Your task to perform on an android device: set default search engine in the chrome app Image 0: 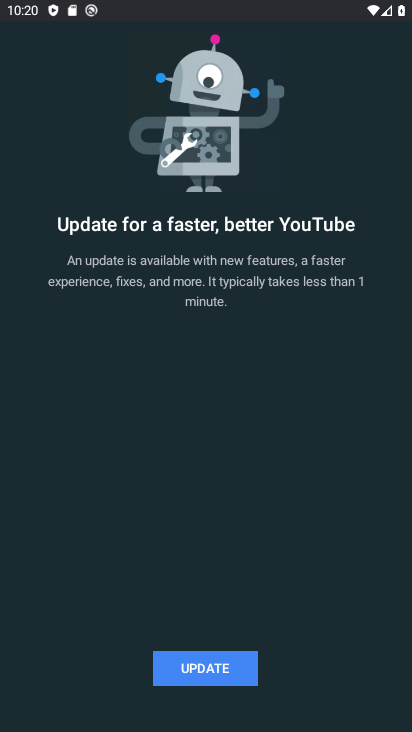
Step 0: press home button
Your task to perform on an android device: set default search engine in the chrome app Image 1: 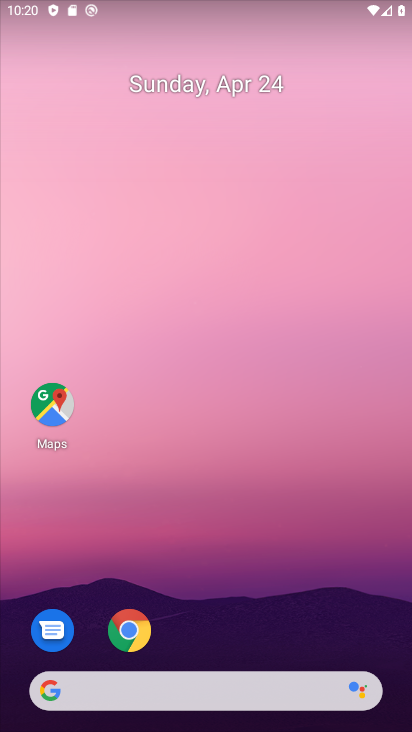
Step 1: click (142, 623)
Your task to perform on an android device: set default search engine in the chrome app Image 2: 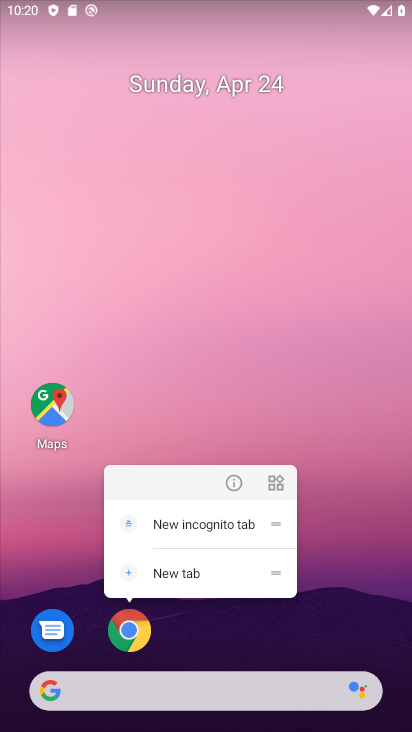
Step 2: click (142, 621)
Your task to perform on an android device: set default search engine in the chrome app Image 3: 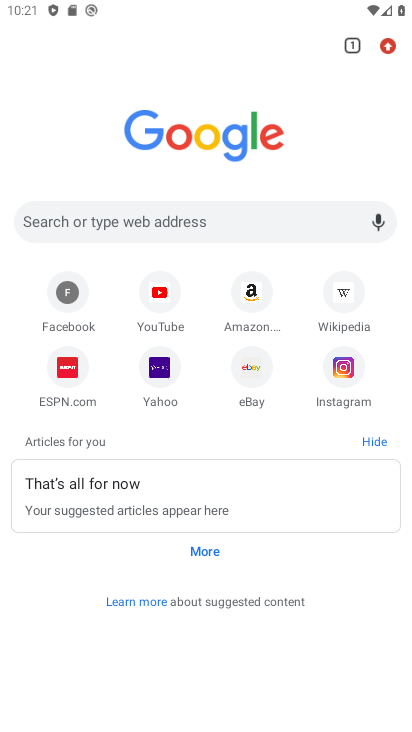
Step 3: drag from (388, 45) to (243, 437)
Your task to perform on an android device: set default search engine in the chrome app Image 4: 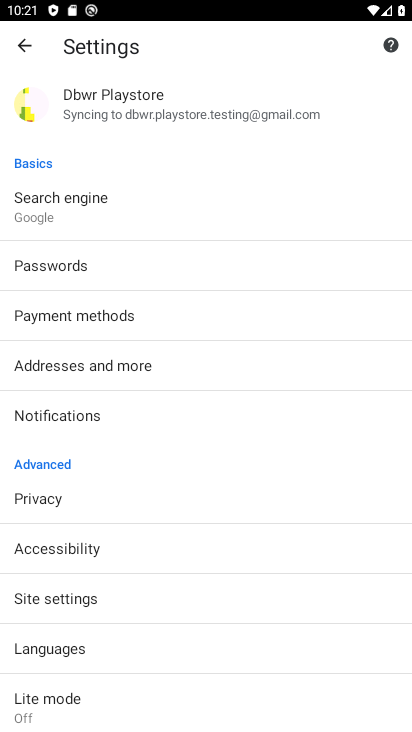
Step 4: click (93, 213)
Your task to perform on an android device: set default search engine in the chrome app Image 5: 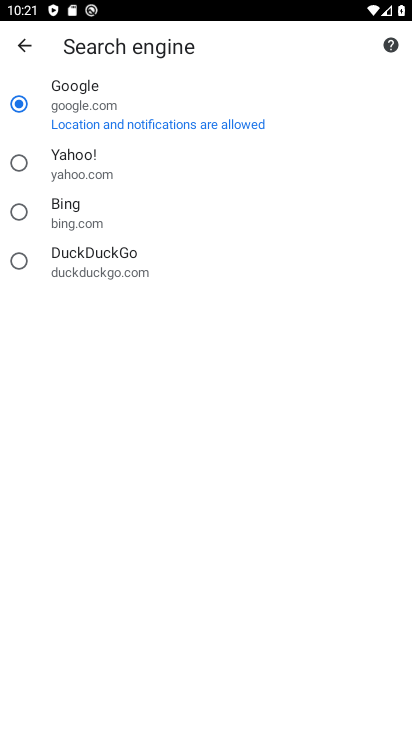
Step 5: click (96, 212)
Your task to perform on an android device: set default search engine in the chrome app Image 6: 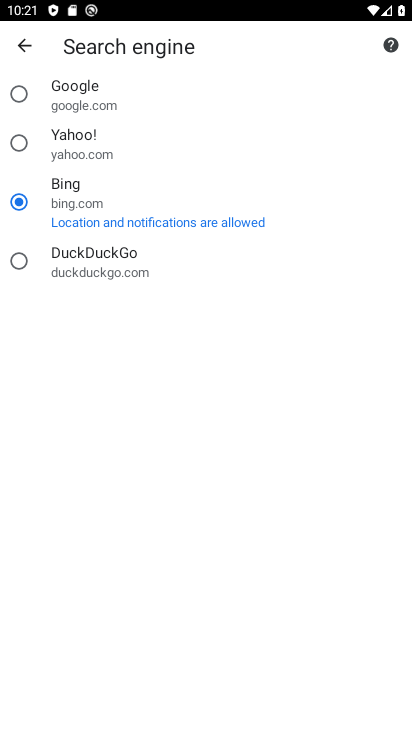
Step 6: task complete